Your task to perform on an android device: Go to ESPN.com Image 0: 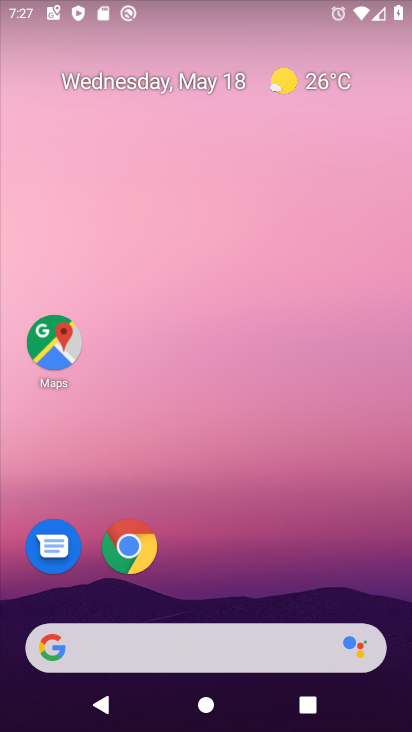
Step 0: drag from (394, 617) to (255, 41)
Your task to perform on an android device: Go to ESPN.com Image 1: 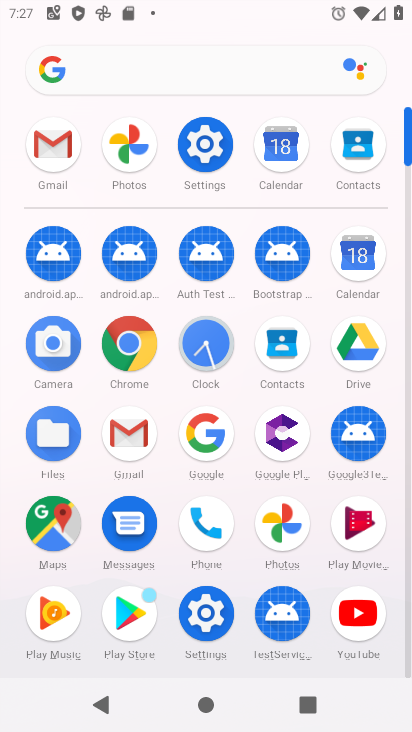
Step 1: click (136, 371)
Your task to perform on an android device: Go to ESPN.com Image 2: 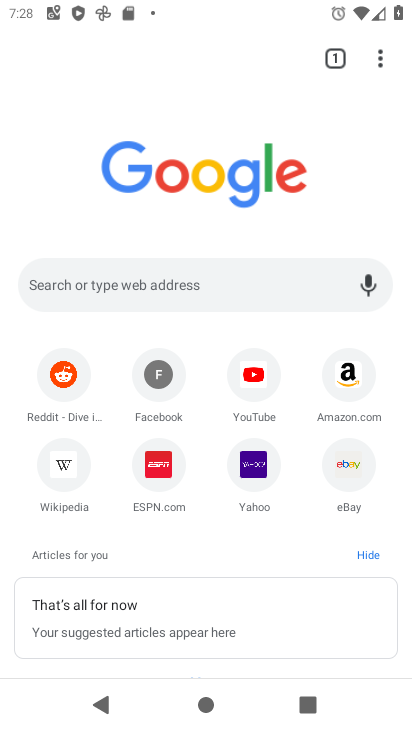
Step 2: click (166, 466)
Your task to perform on an android device: Go to ESPN.com Image 3: 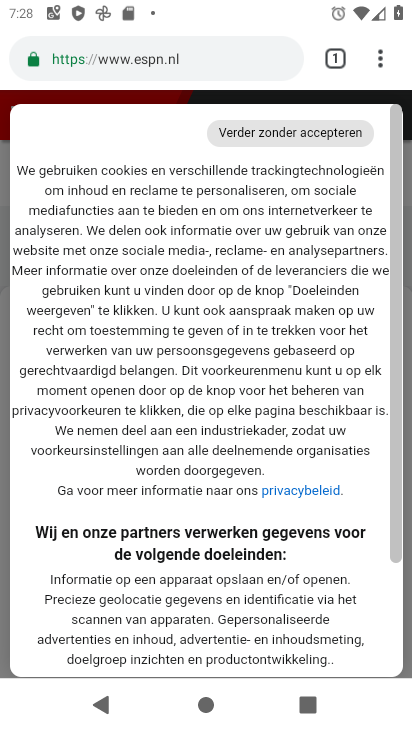
Step 3: task complete